Your task to perform on an android device: turn notification dots off Image 0: 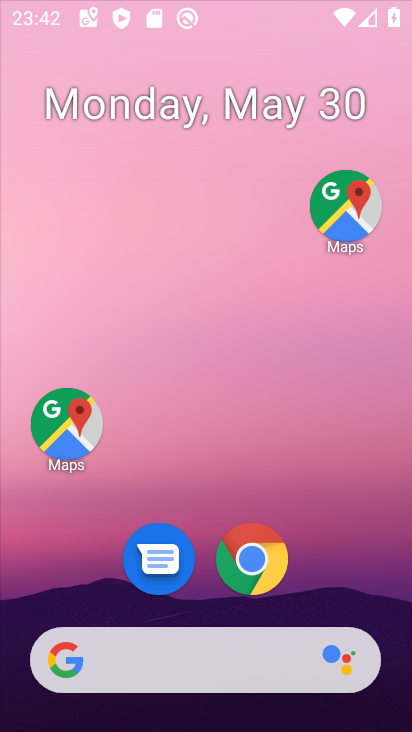
Step 0: drag from (316, 237) to (292, 138)
Your task to perform on an android device: turn notification dots off Image 1: 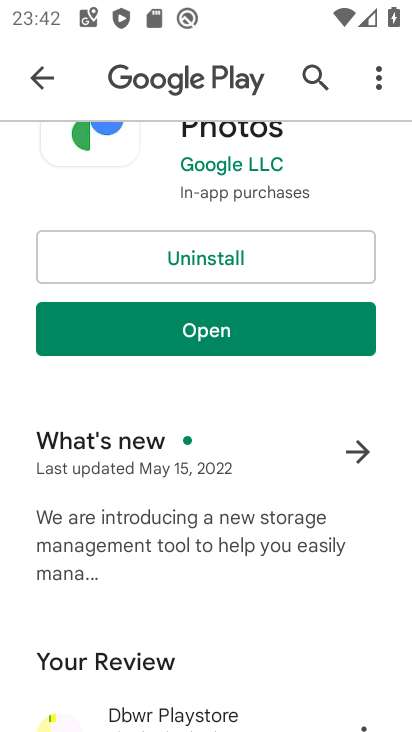
Step 1: press home button
Your task to perform on an android device: turn notification dots off Image 2: 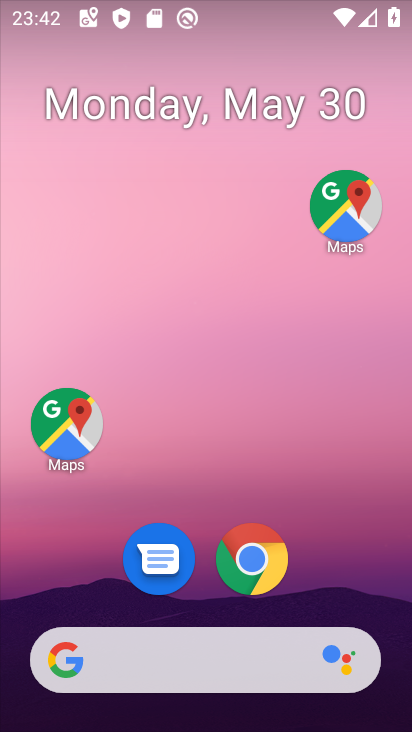
Step 2: drag from (328, 548) to (281, 151)
Your task to perform on an android device: turn notification dots off Image 3: 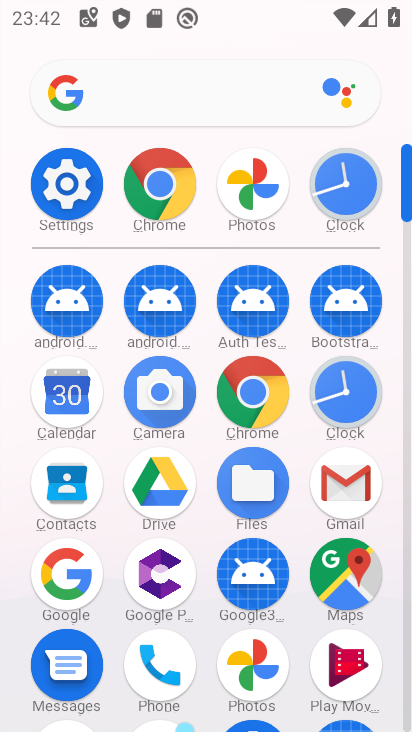
Step 3: click (77, 184)
Your task to perform on an android device: turn notification dots off Image 4: 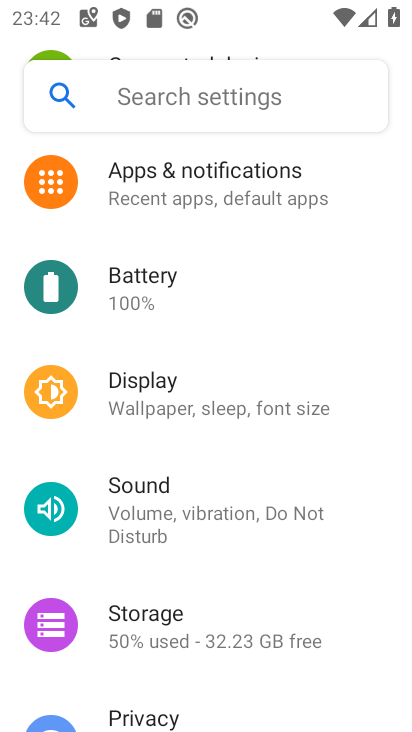
Step 4: click (218, 202)
Your task to perform on an android device: turn notification dots off Image 5: 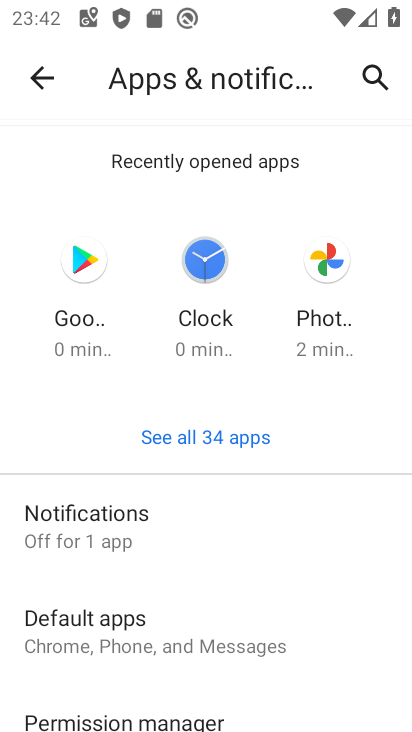
Step 5: drag from (254, 603) to (230, 223)
Your task to perform on an android device: turn notification dots off Image 6: 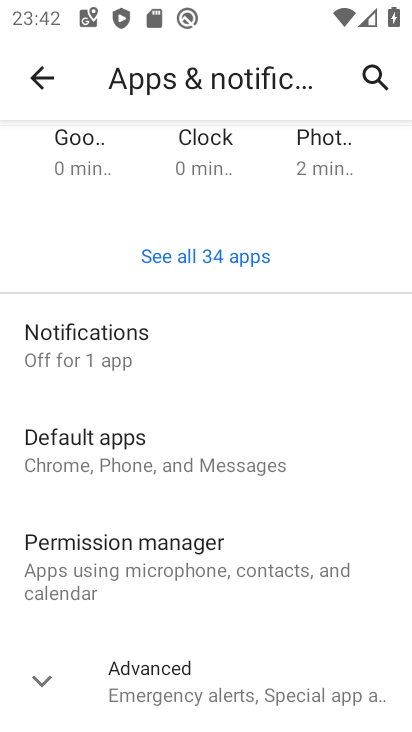
Step 6: click (84, 367)
Your task to perform on an android device: turn notification dots off Image 7: 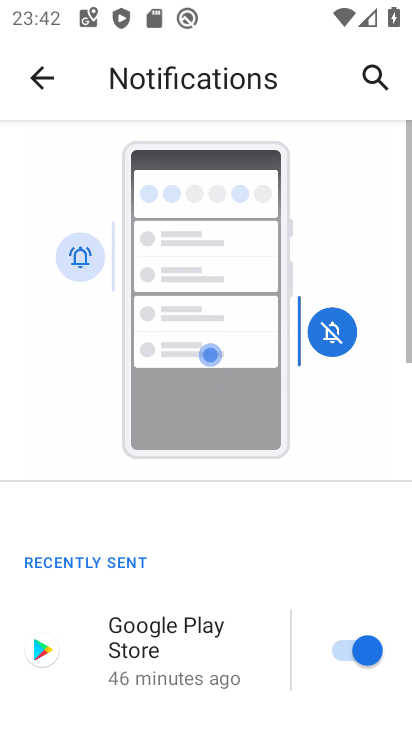
Step 7: drag from (215, 528) to (152, 150)
Your task to perform on an android device: turn notification dots off Image 8: 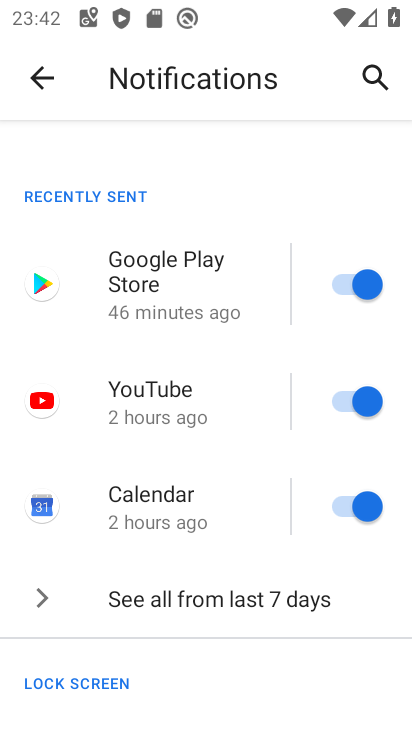
Step 8: drag from (174, 545) to (171, 211)
Your task to perform on an android device: turn notification dots off Image 9: 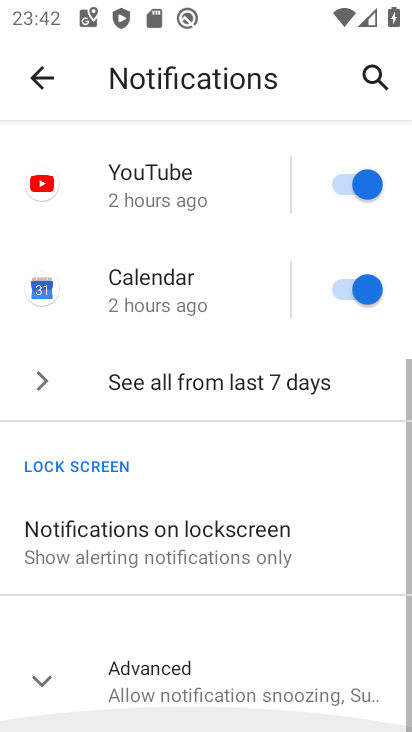
Step 9: click (171, 206)
Your task to perform on an android device: turn notification dots off Image 10: 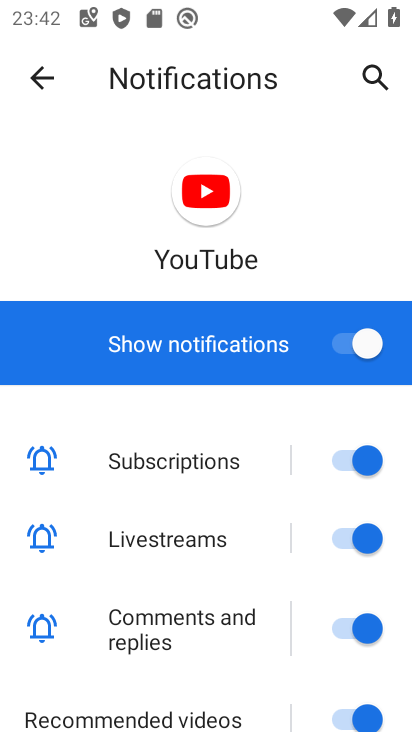
Step 10: click (43, 93)
Your task to perform on an android device: turn notification dots off Image 11: 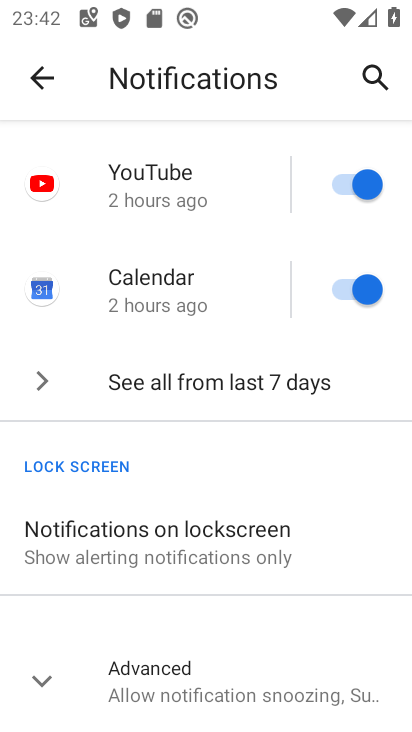
Step 11: drag from (213, 539) to (207, 115)
Your task to perform on an android device: turn notification dots off Image 12: 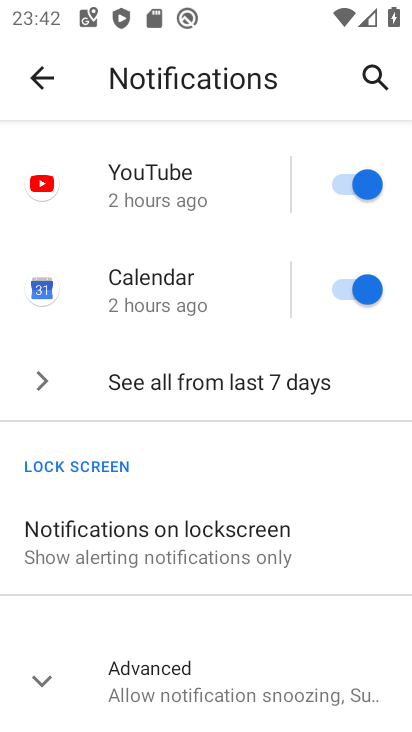
Step 12: click (163, 671)
Your task to perform on an android device: turn notification dots off Image 13: 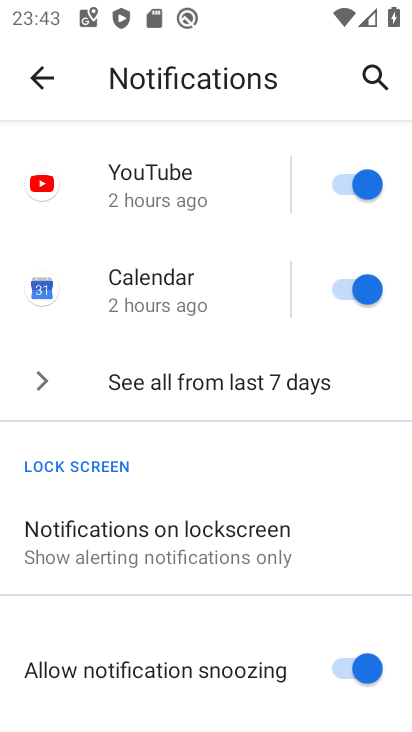
Step 13: drag from (214, 621) to (187, 180)
Your task to perform on an android device: turn notification dots off Image 14: 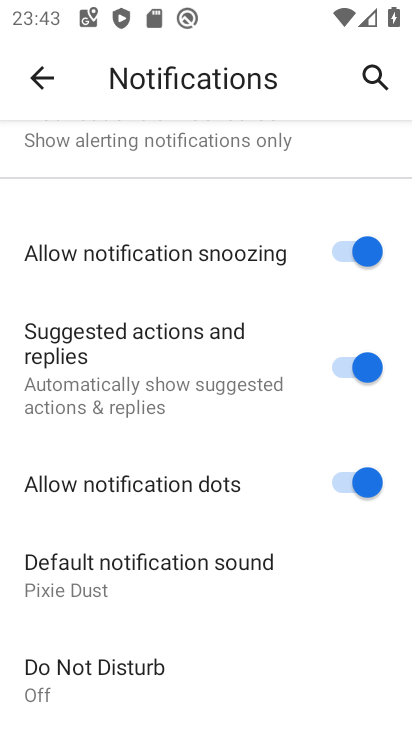
Step 14: click (339, 470)
Your task to perform on an android device: turn notification dots off Image 15: 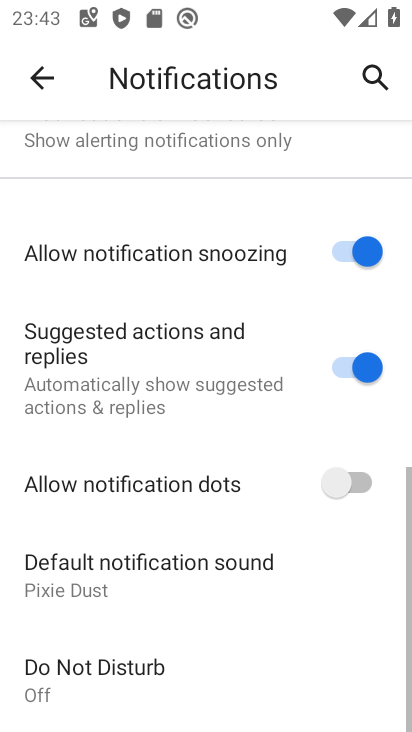
Step 15: task complete